Your task to perform on an android device: open a bookmark in the chrome app Image 0: 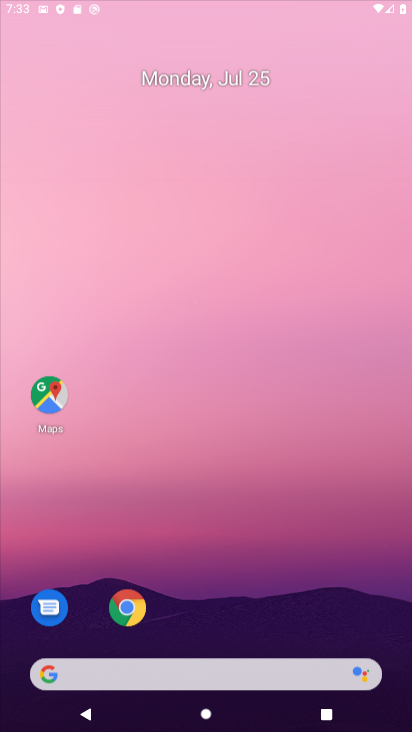
Step 0: drag from (320, 628) to (305, 173)
Your task to perform on an android device: open a bookmark in the chrome app Image 1: 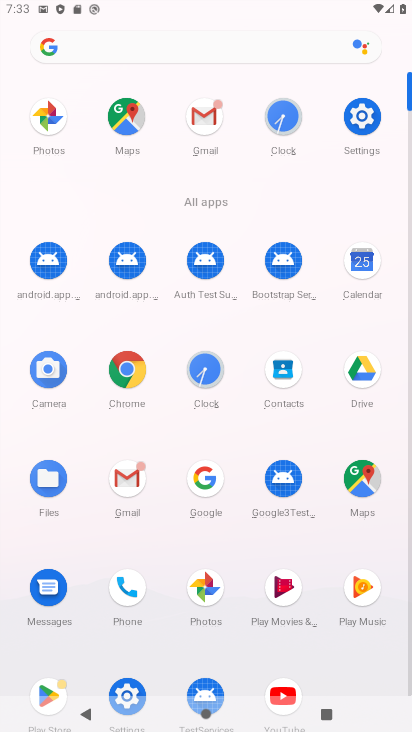
Step 1: click (133, 367)
Your task to perform on an android device: open a bookmark in the chrome app Image 2: 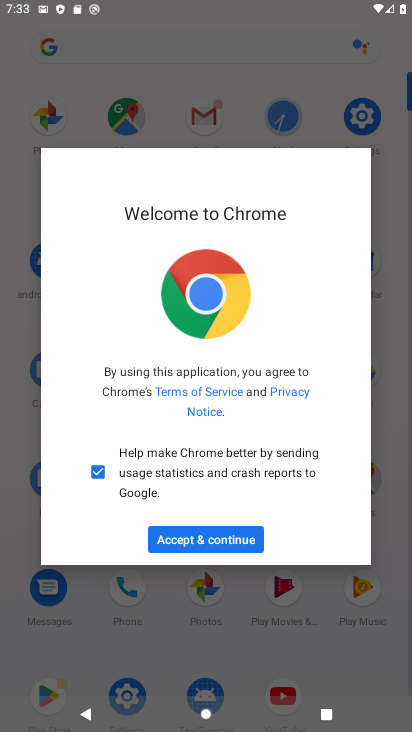
Step 2: click (238, 539)
Your task to perform on an android device: open a bookmark in the chrome app Image 3: 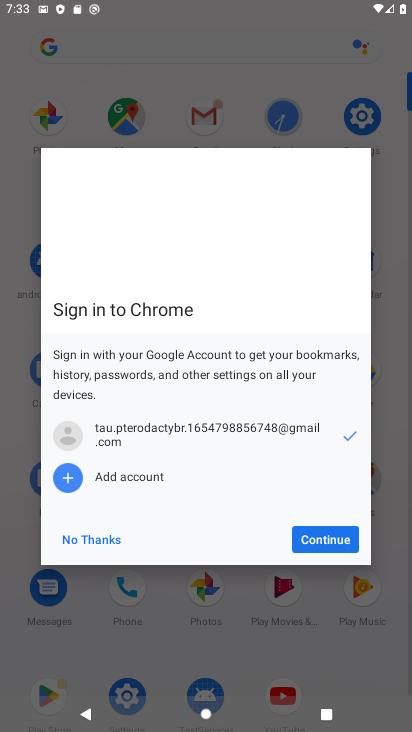
Step 3: click (323, 535)
Your task to perform on an android device: open a bookmark in the chrome app Image 4: 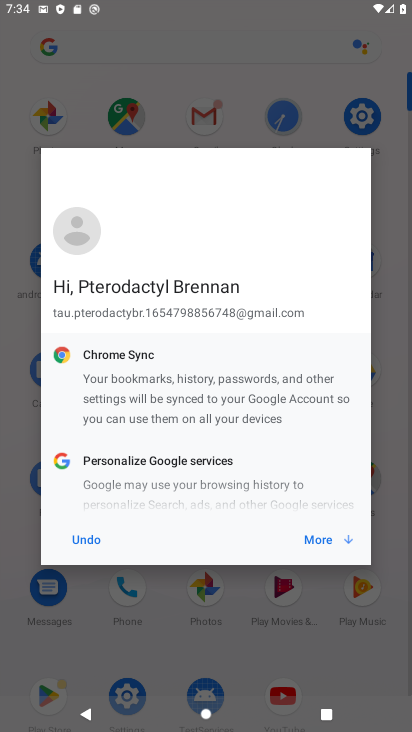
Step 4: click (323, 538)
Your task to perform on an android device: open a bookmark in the chrome app Image 5: 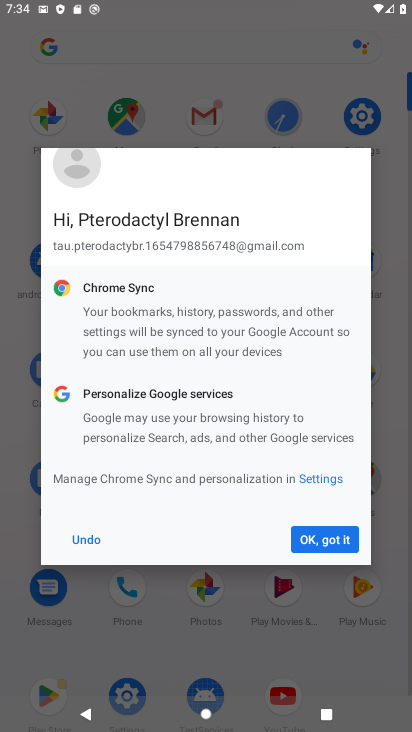
Step 5: click (323, 535)
Your task to perform on an android device: open a bookmark in the chrome app Image 6: 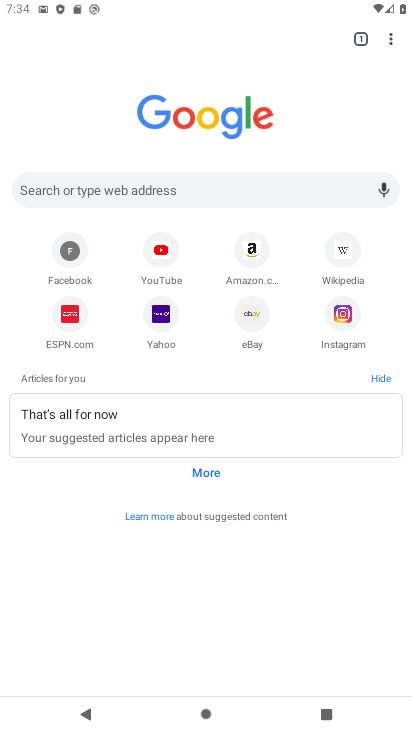
Step 6: drag from (386, 40) to (255, 153)
Your task to perform on an android device: open a bookmark in the chrome app Image 7: 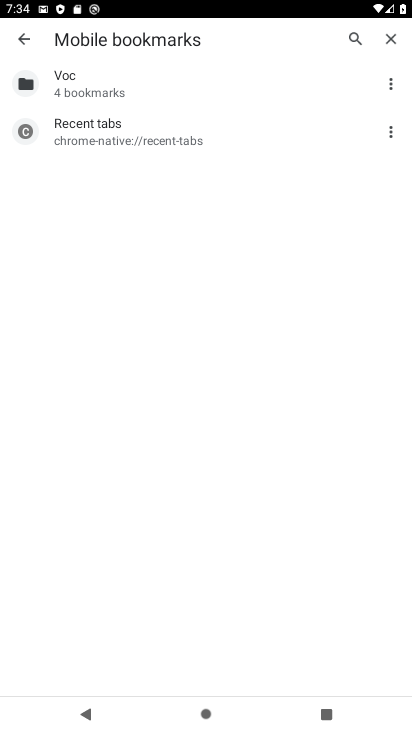
Step 7: click (98, 131)
Your task to perform on an android device: open a bookmark in the chrome app Image 8: 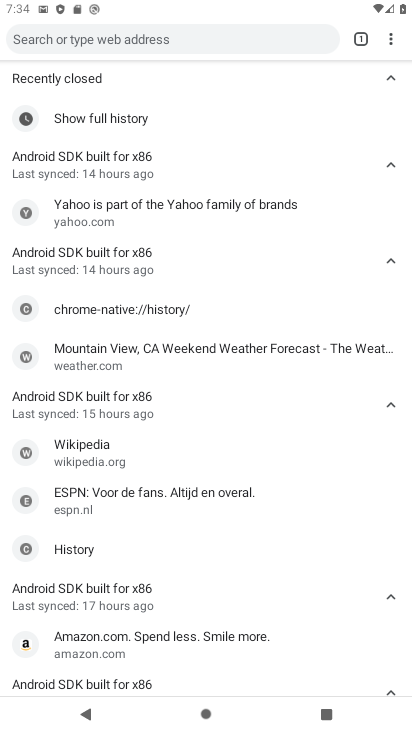
Step 8: drag from (386, 33) to (271, 156)
Your task to perform on an android device: open a bookmark in the chrome app Image 9: 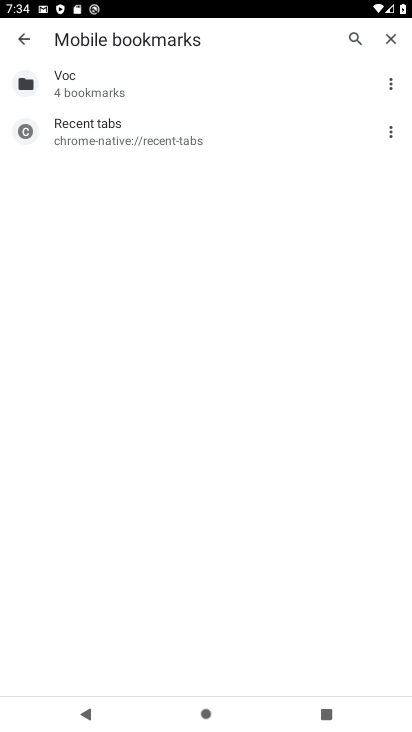
Step 9: click (125, 86)
Your task to perform on an android device: open a bookmark in the chrome app Image 10: 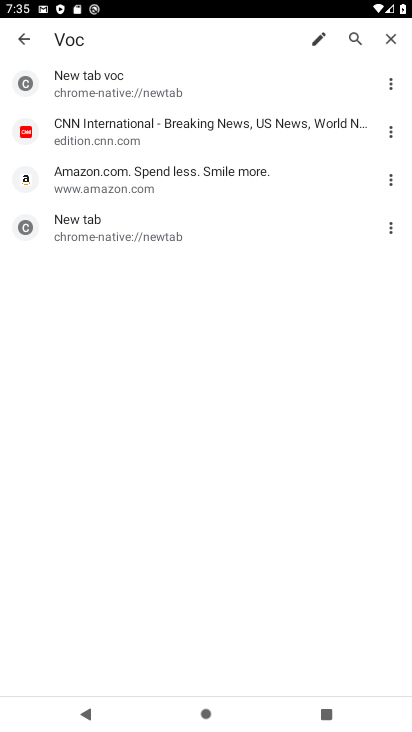
Step 10: click (62, 178)
Your task to perform on an android device: open a bookmark in the chrome app Image 11: 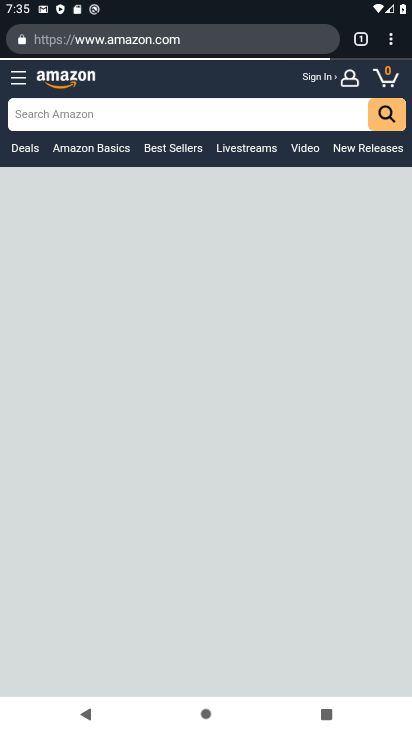
Step 11: task complete